Your task to perform on an android device: turn on notifications settings in the gmail app Image 0: 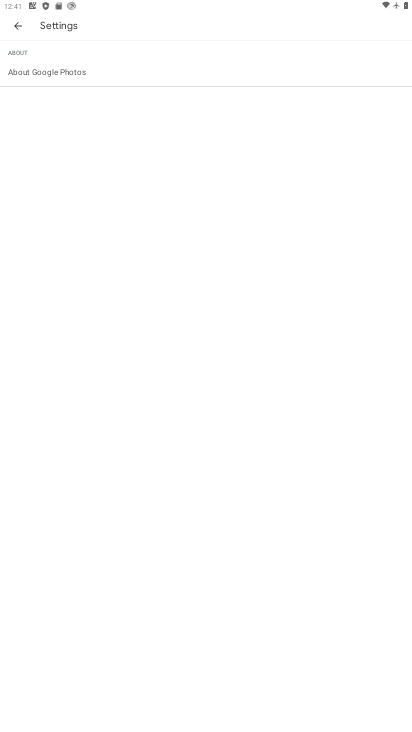
Step 0: press home button
Your task to perform on an android device: turn on notifications settings in the gmail app Image 1: 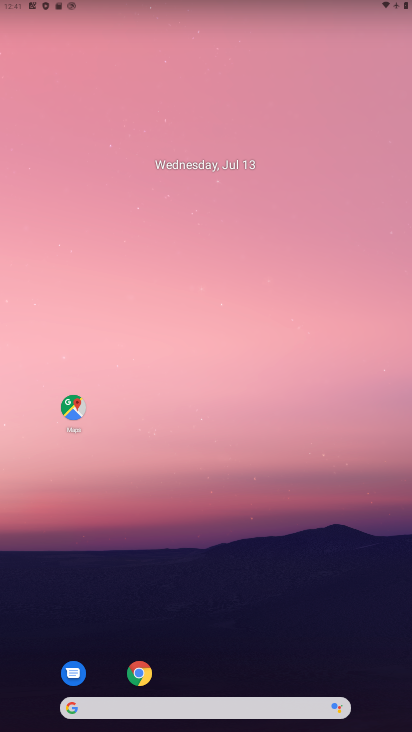
Step 1: drag from (287, 653) to (275, 88)
Your task to perform on an android device: turn on notifications settings in the gmail app Image 2: 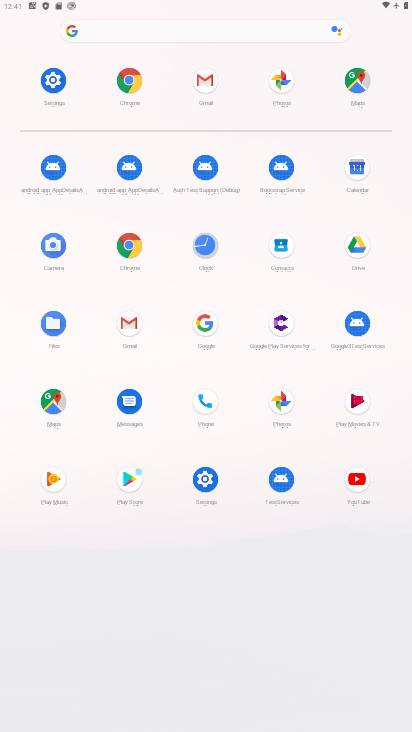
Step 2: click (142, 340)
Your task to perform on an android device: turn on notifications settings in the gmail app Image 3: 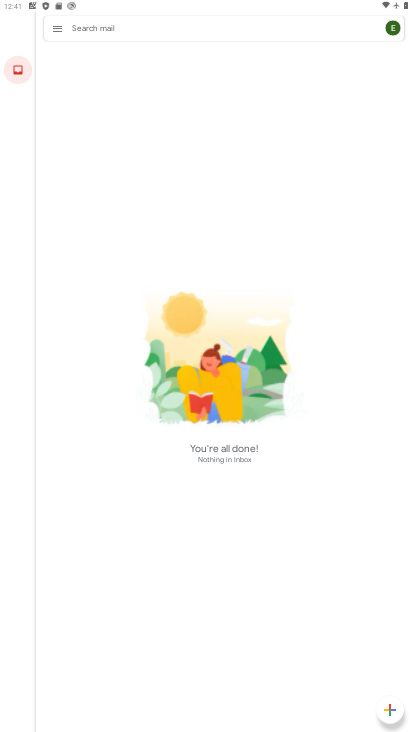
Step 3: click (61, 29)
Your task to perform on an android device: turn on notifications settings in the gmail app Image 4: 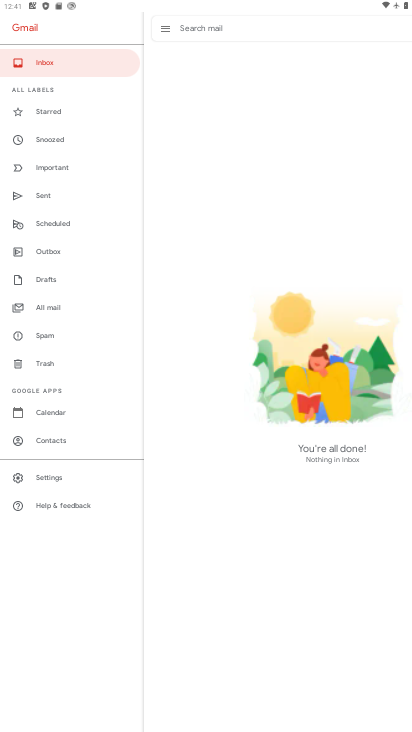
Step 4: click (60, 469)
Your task to perform on an android device: turn on notifications settings in the gmail app Image 5: 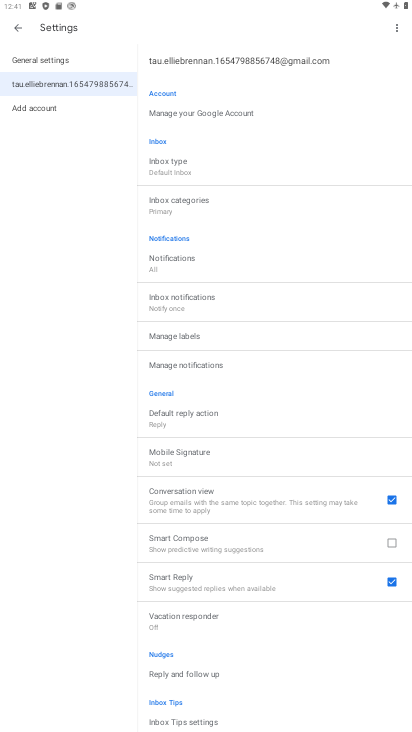
Step 5: click (72, 60)
Your task to perform on an android device: turn on notifications settings in the gmail app Image 6: 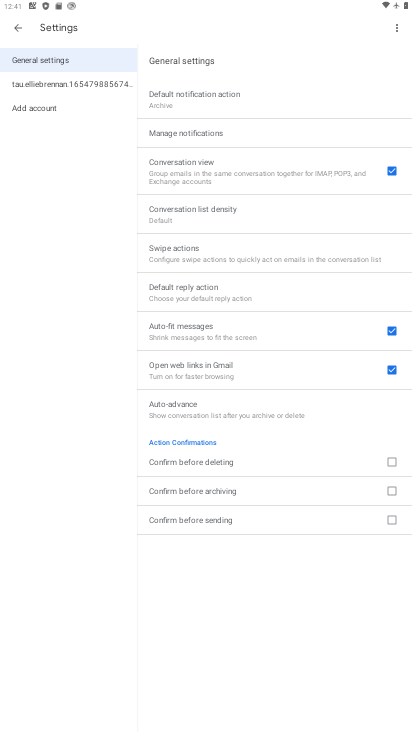
Step 6: task complete